Your task to perform on an android device: turn on wifi Image 0: 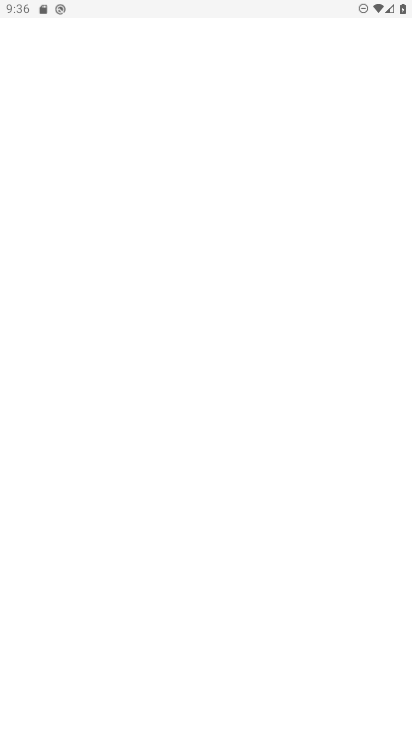
Step 0: drag from (274, 543) to (197, 93)
Your task to perform on an android device: turn on wifi Image 1: 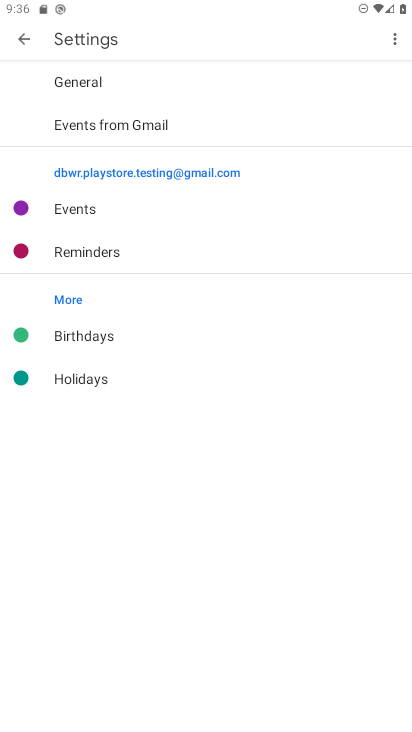
Step 1: task complete